Your task to perform on an android device: Open the web browser Image 0: 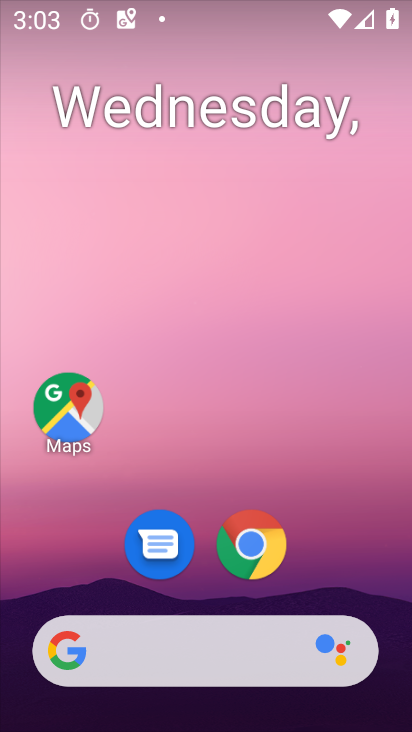
Step 0: press home button
Your task to perform on an android device: Open the web browser Image 1: 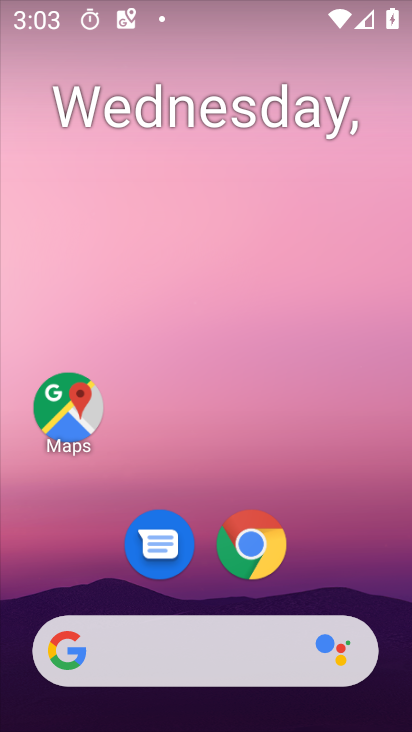
Step 1: drag from (376, 594) to (329, 127)
Your task to perform on an android device: Open the web browser Image 2: 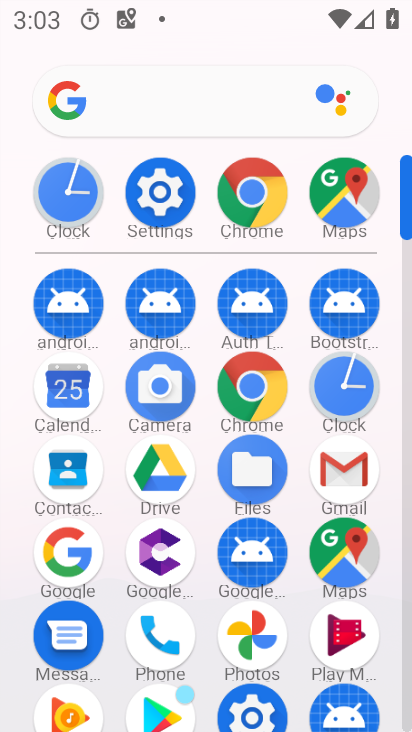
Step 2: click (281, 378)
Your task to perform on an android device: Open the web browser Image 3: 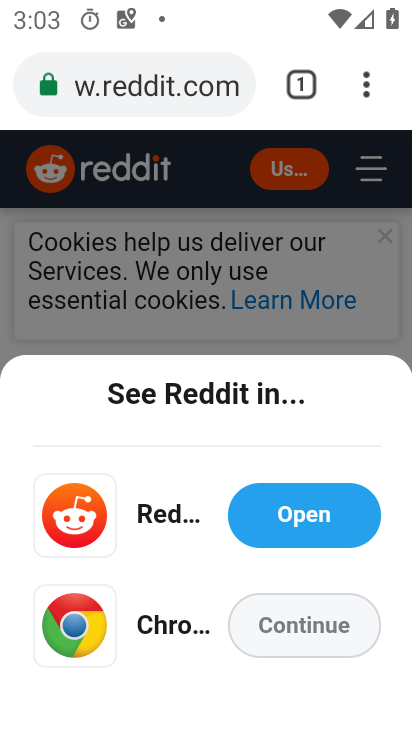
Step 3: task complete